Your task to perform on an android device: snooze an email in the gmail app Image 0: 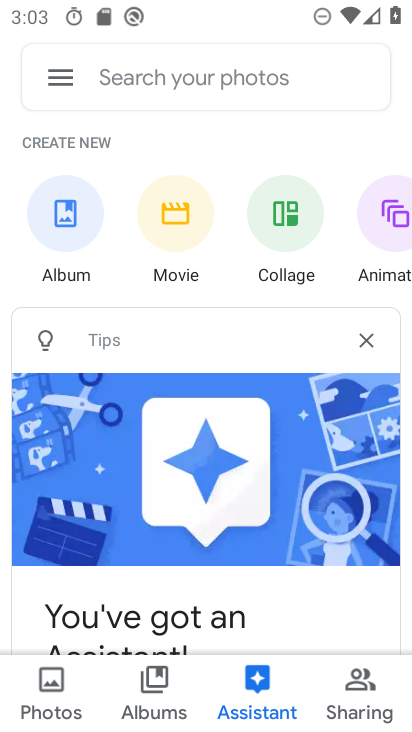
Step 0: press home button
Your task to perform on an android device: snooze an email in the gmail app Image 1: 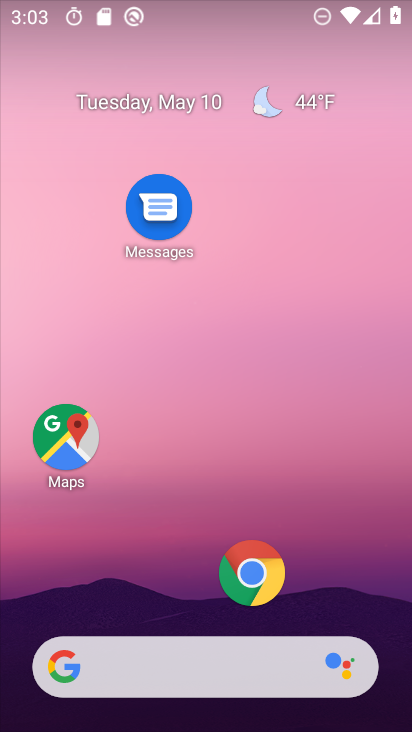
Step 1: drag from (192, 596) to (202, 314)
Your task to perform on an android device: snooze an email in the gmail app Image 2: 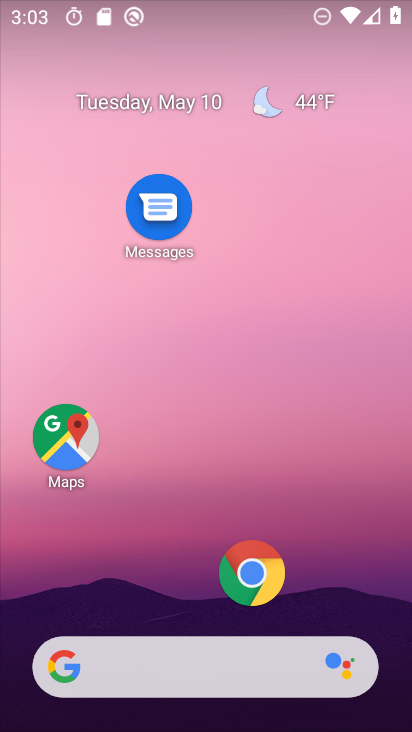
Step 2: drag from (185, 611) to (227, 74)
Your task to perform on an android device: snooze an email in the gmail app Image 3: 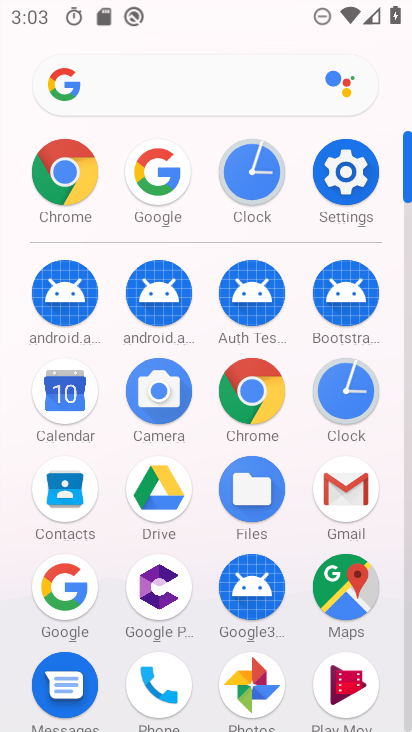
Step 3: click (335, 475)
Your task to perform on an android device: snooze an email in the gmail app Image 4: 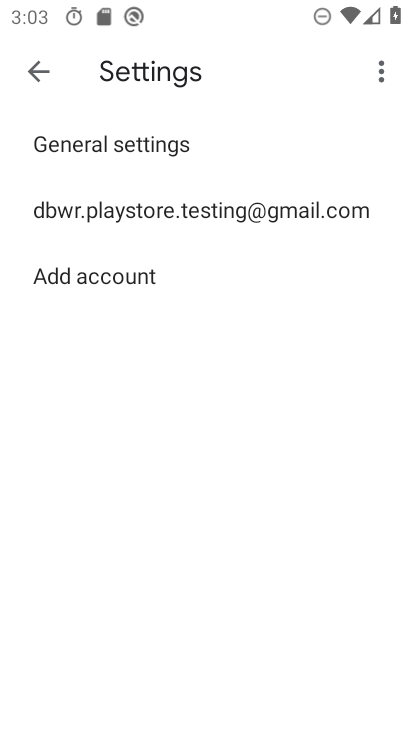
Step 4: click (46, 68)
Your task to perform on an android device: snooze an email in the gmail app Image 5: 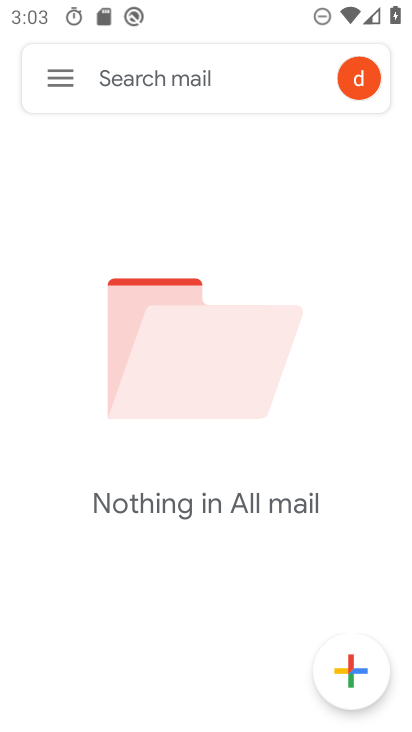
Step 5: click (46, 68)
Your task to perform on an android device: snooze an email in the gmail app Image 6: 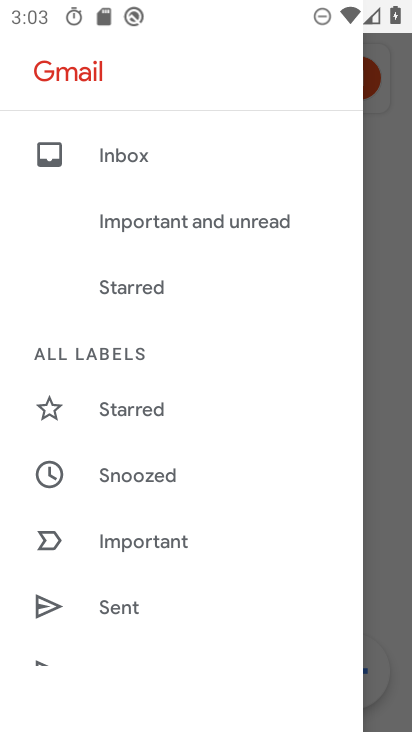
Step 6: drag from (167, 595) to (211, 260)
Your task to perform on an android device: snooze an email in the gmail app Image 7: 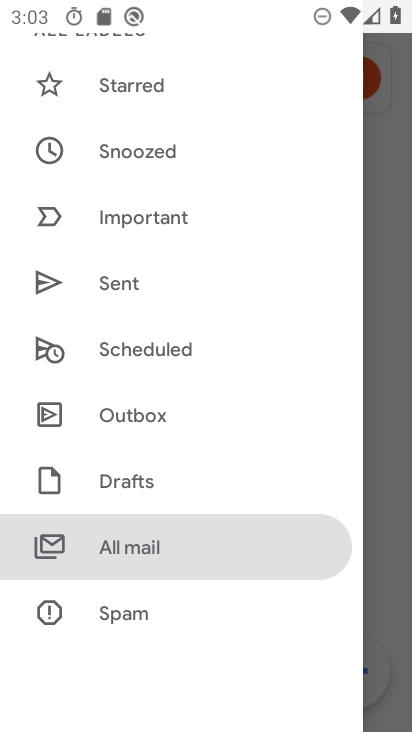
Step 7: click (106, 560)
Your task to perform on an android device: snooze an email in the gmail app Image 8: 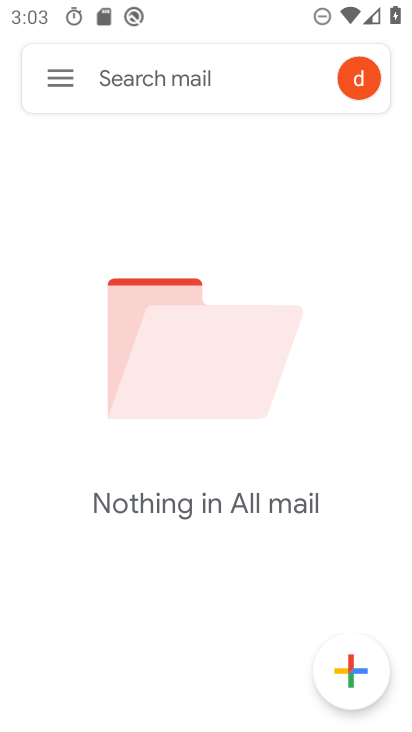
Step 8: task complete